Your task to perform on an android device: turn on javascript in the chrome app Image 0: 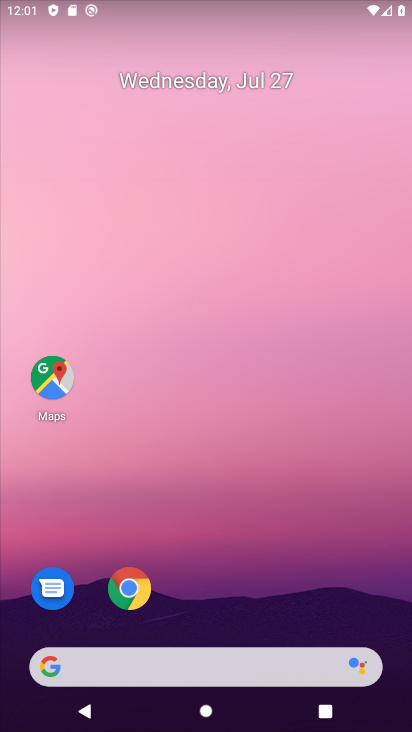
Step 0: drag from (279, 623) to (200, 21)
Your task to perform on an android device: turn on javascript in the chrome app Image 1: 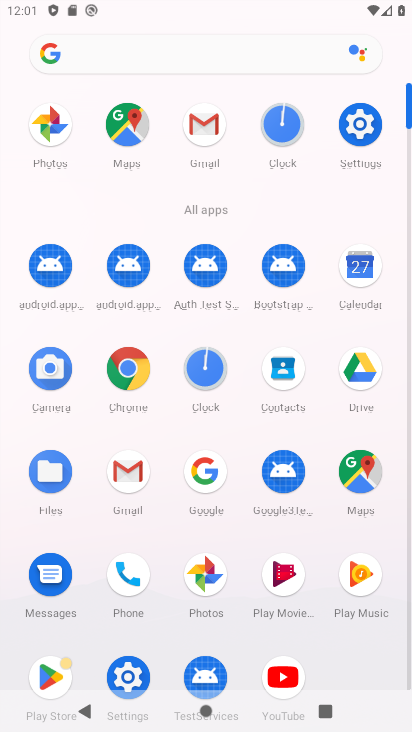
Step 1: click (133, 374)
Your task to perform on an android device: turn on javascript in the chrome app Image 2: 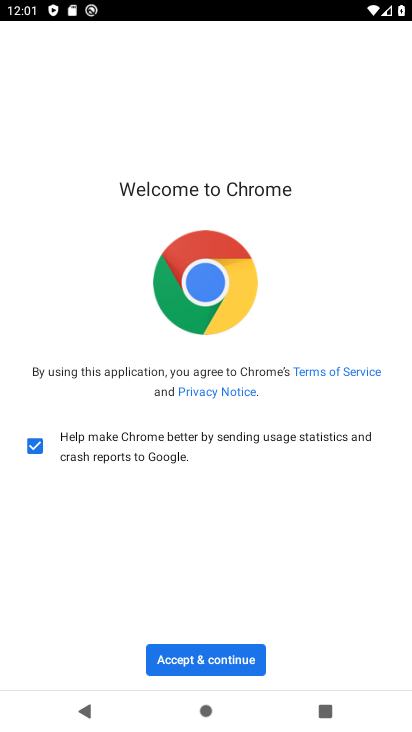
Step 2: click (225, 664)
Your task to perform on an android device: turn on javascript in the chrome app Image 3: 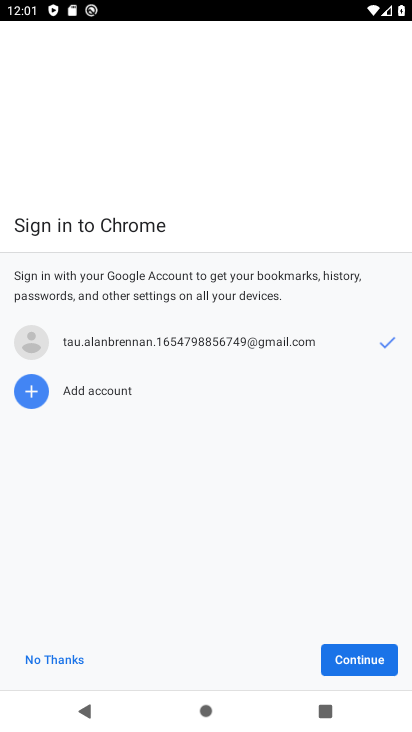
Step 3: click (327, 660)
Your task to perform on an android device: turn on javascript in the chrome app Image 4: 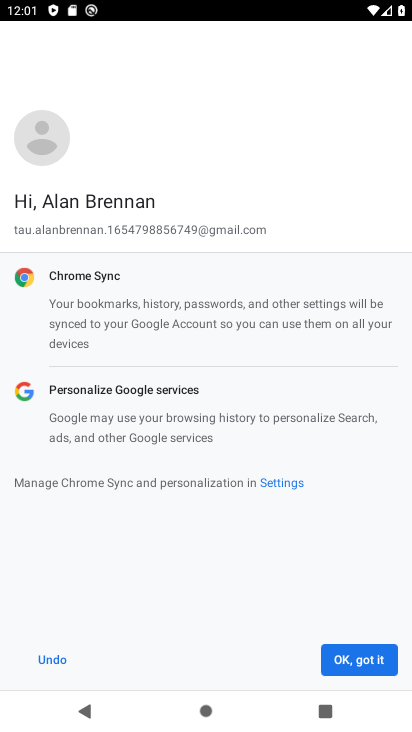
Step 4: click (327, 660)
Your task to perform on an android device: turn on javascript in the chrome app Image 5: 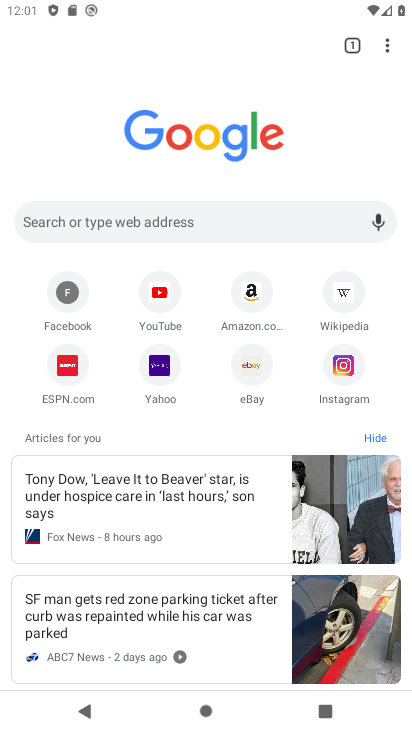
Step 5: click (390, 39)
Your task to perform on an android device: turn on javascript in the chrome app Image 6: 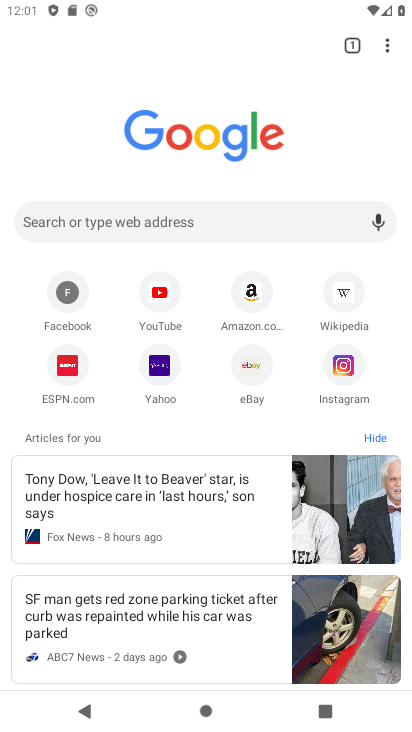
Step 6: click (390, 39)
Your task to perform on an android device: turn on javascript in the chrome app Image 7: 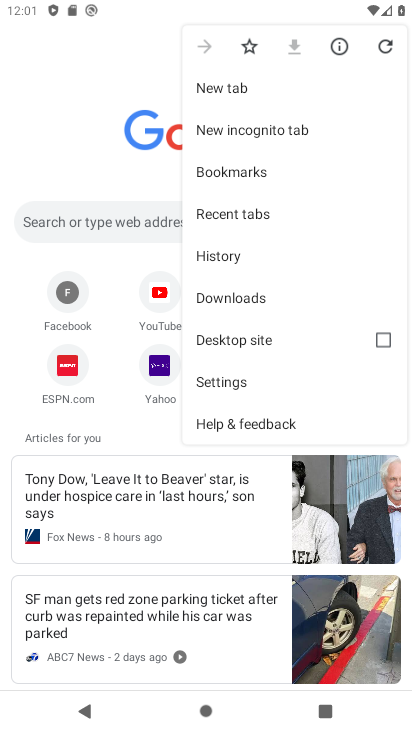
Step 7: click (286, 382)
Your task to perform on an android device: turn on javascript in the chrome app Image 8: 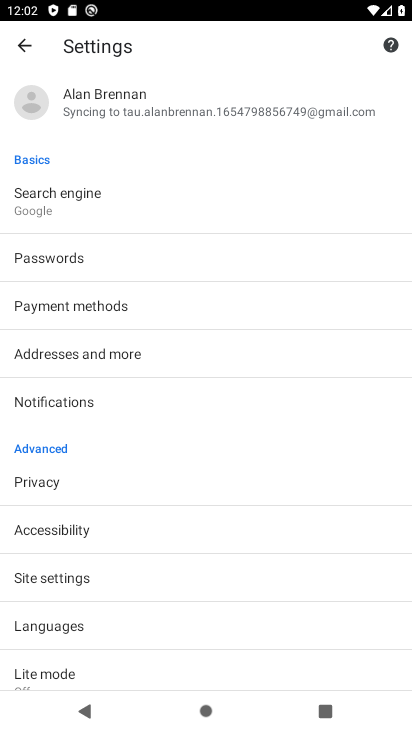
Step 8: click (204, 579)
Your task to perform on an android device: turn on javascript in the chrome app Image 9: 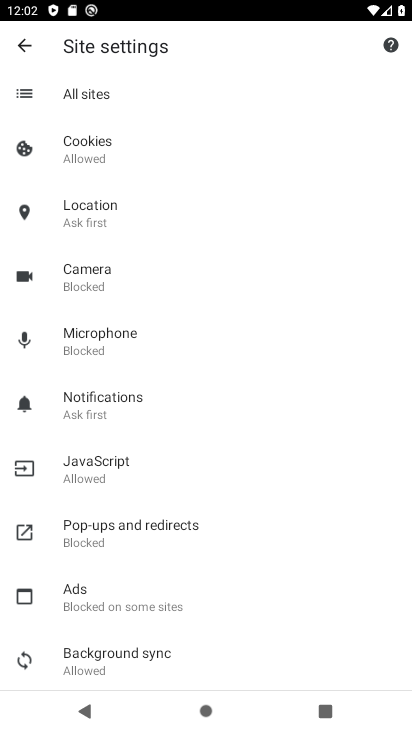
Step 9: click (154, 495)
Your task to perform on an android device: turn on javascript in the chrome app Image 10: 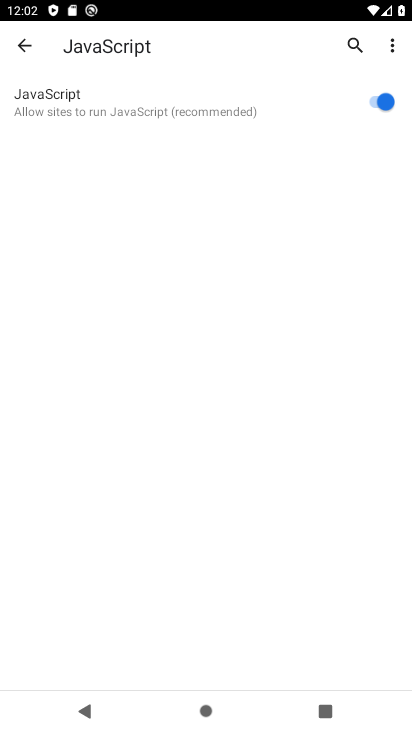
Step 10: task complete